Your task to perform on an android device: Go to CNN.com Image 0: 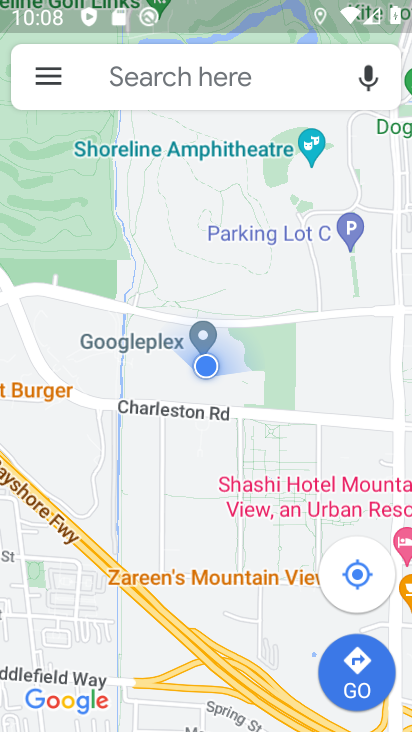
Step 0: task complete